Your task to perform on an android device: move an email to a new category in the gmail app Image 0: 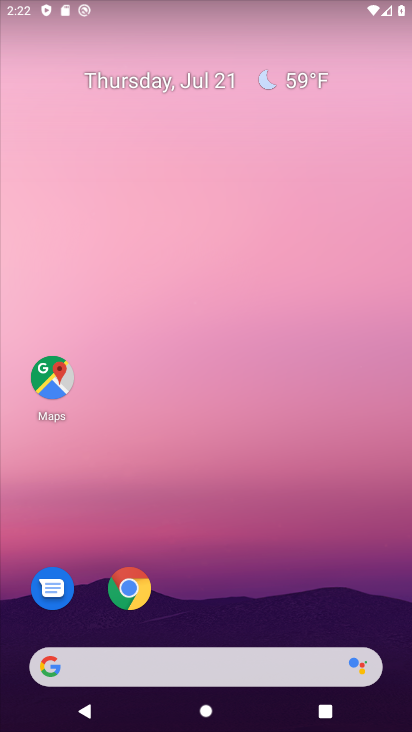
Step 0: drag from (387, 702) to (336, 228)
Your task to perform on an android device: move an email to a new category in the gmail app Image 1: 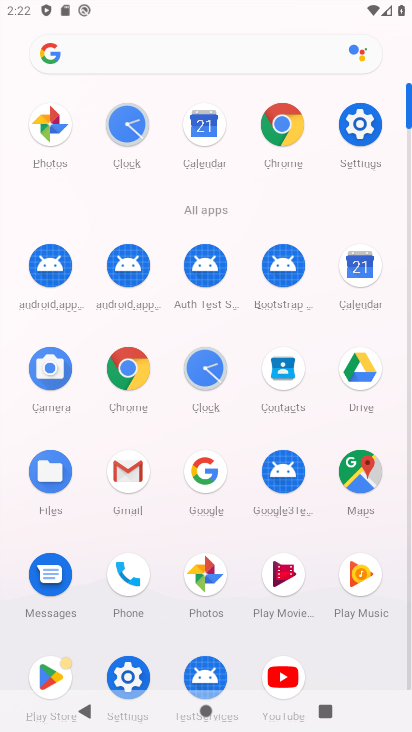
Step 1: click (127, 463)
Your task to perform on an android device: move an email to a new category in the gmail app Image 2: 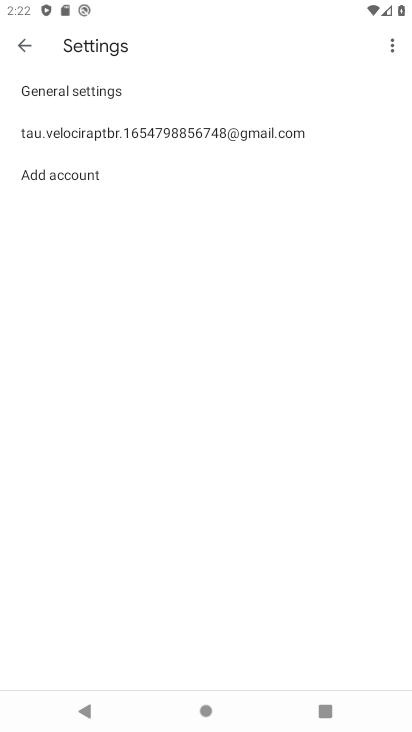
Step 2: click (23, 51)
Your task to perform on an android device: move an email to a new category in the gmail app Image 3: 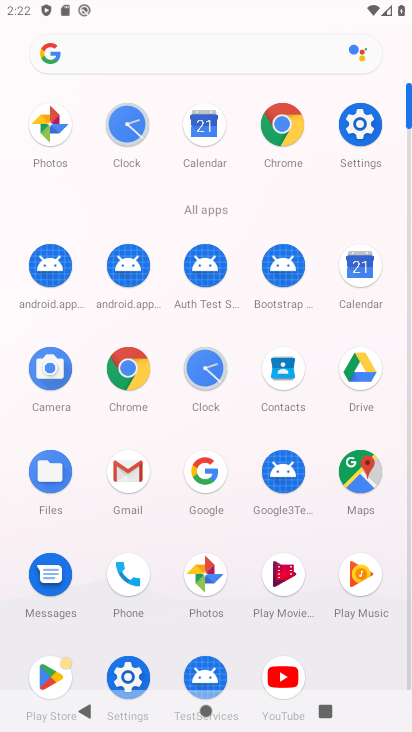
Step 3: click (120, 476)
Your task to perform on an android device: move an email to a new category in the gmail app Image 4: 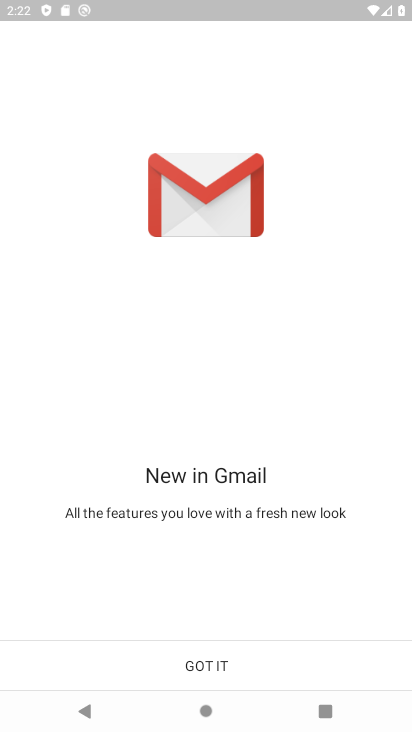
Step 4: click (214, 664)
Your task to perform on an android device: move an email to a new category in the gmail app Image 5: 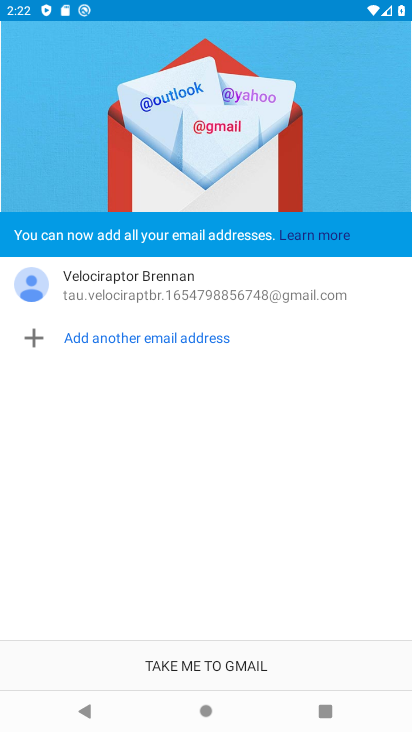
Step 5: click (214, 664)
Your task to perform on an android device: move an email to a new category in the gmail app Image 6: 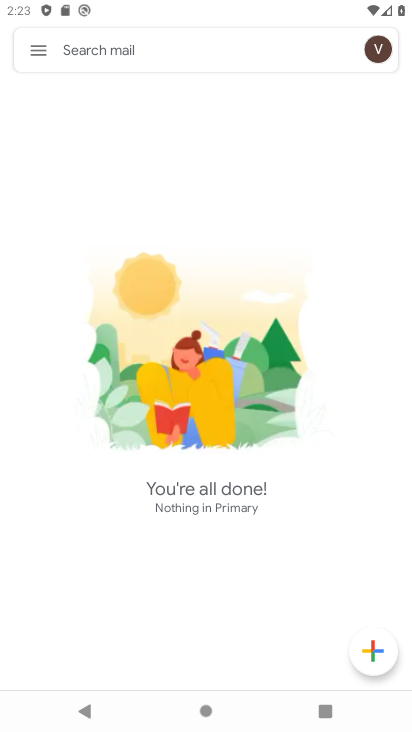
Step 6: task complete